Your task to perform on an android device: open device folders in google photos Image 0: 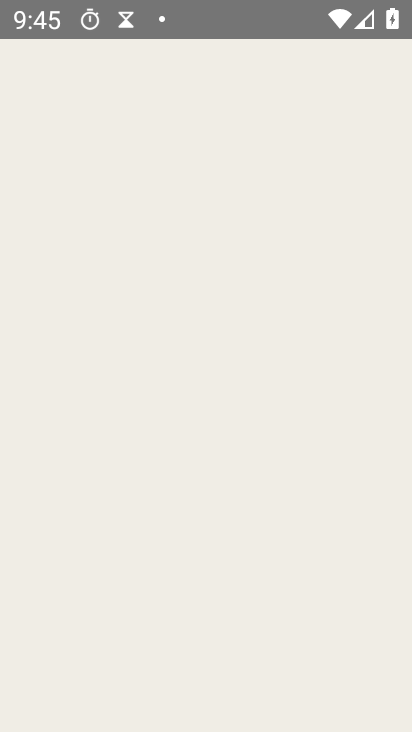
Step 0: drag from (365, 607) to (244, 145)
Your task to perform on an android device: open device folders in google photos Image 1: 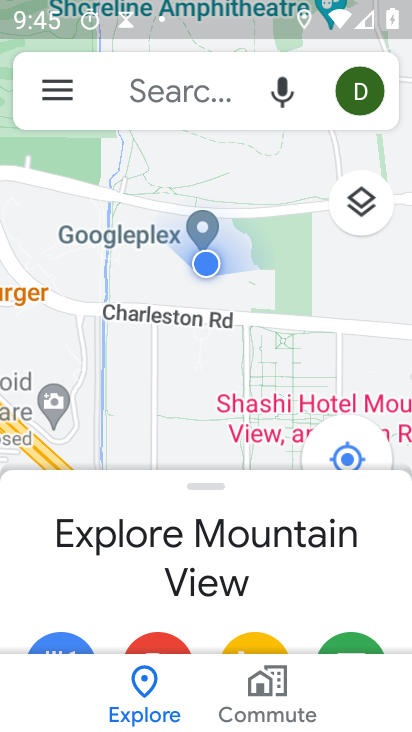
Step 1: press home button
Your task to perform on an android device: open device folders in google photos Image 2: 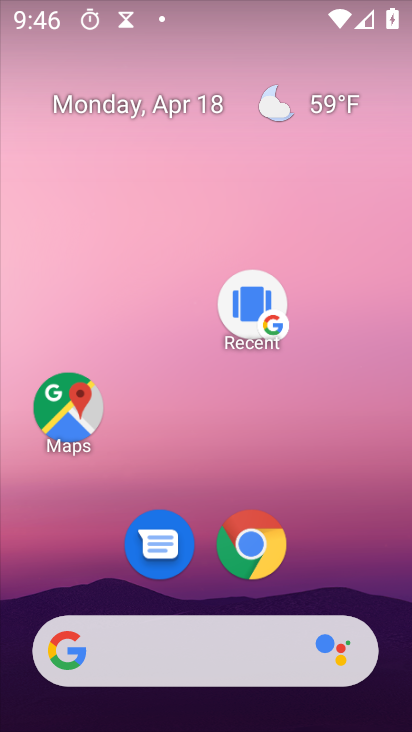
Step 2: drag from (350, 475) to (291, 167)
Your task to perform on an android device: open device folders in google photos Image 3: 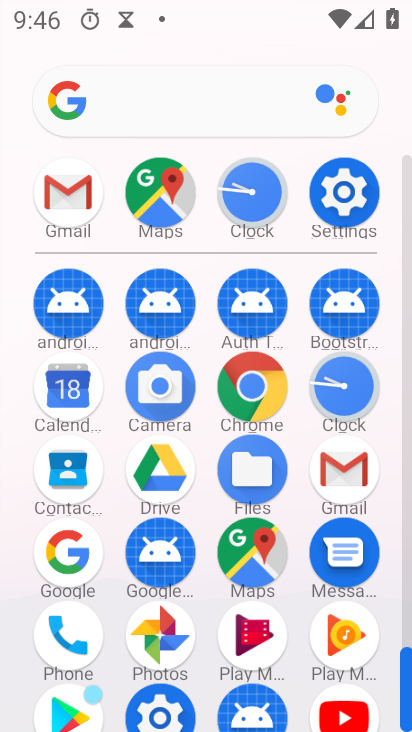
Step 3: click (171, 643)
Your task to perform on an android device: open device folders in google photos Image 4: 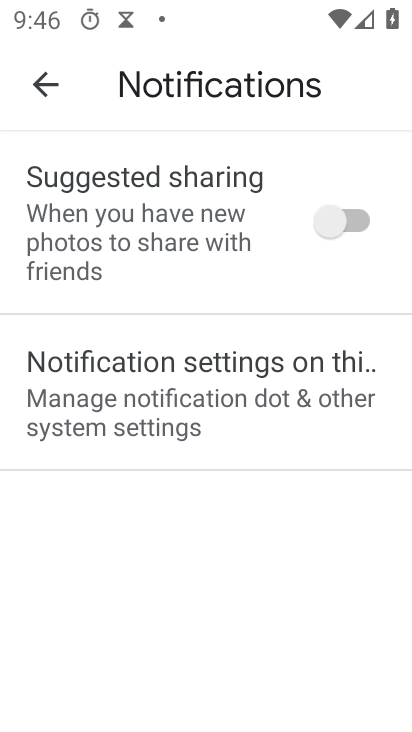
Step 4: click (50, 100)
Your task to perform on an android device: open device folders in google photos Image 5: 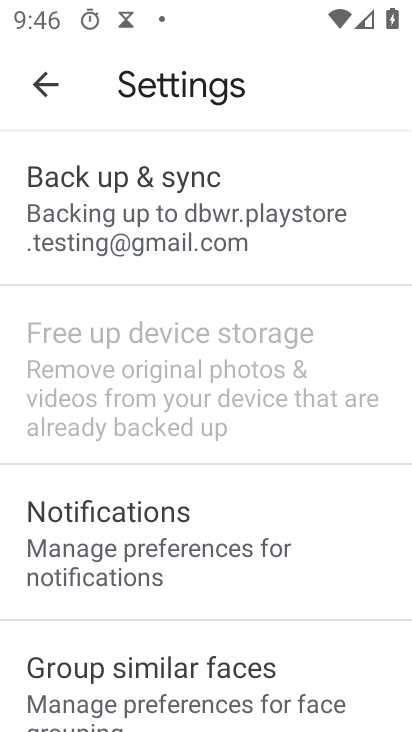
Step 5: click (50, 100)
Your task to perform on an android device: open device folders in google photos Image 6: 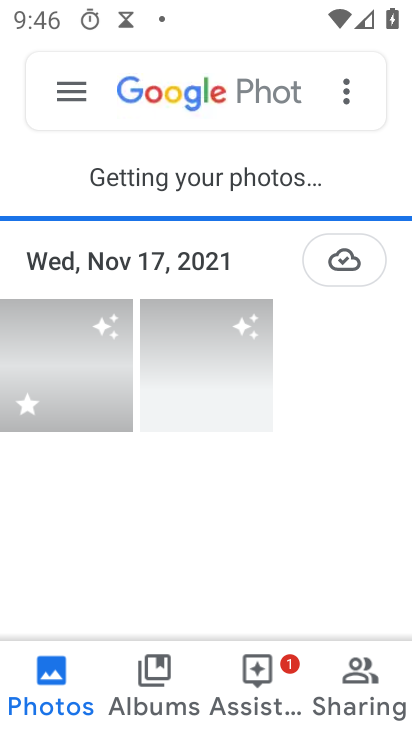
Step 6: click (50, 100)
Your task to perform on an android device: open device folders in google photos Image 7: 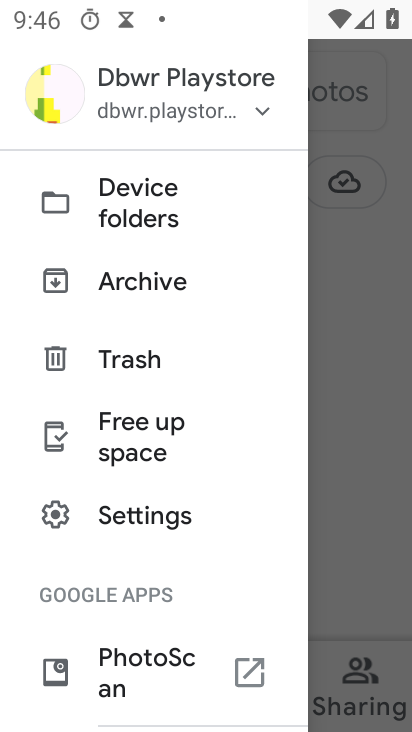
Step 7: click (104, 202)
Your task to perform on an android device: open device folders in google photos Image 8: 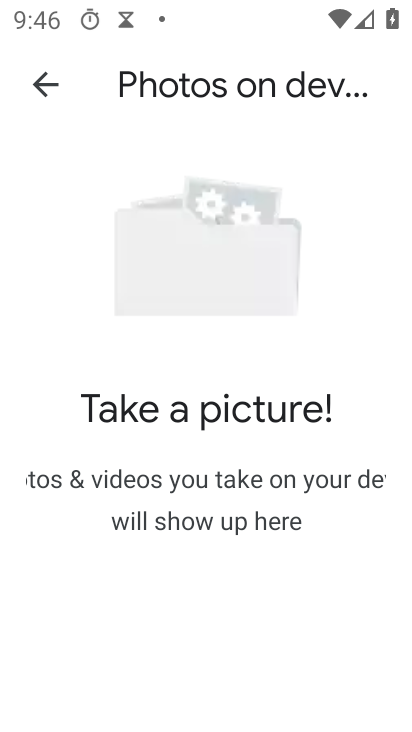
Step 8: task complete